Your task to perform on an android device: Open my contact list Image 0: 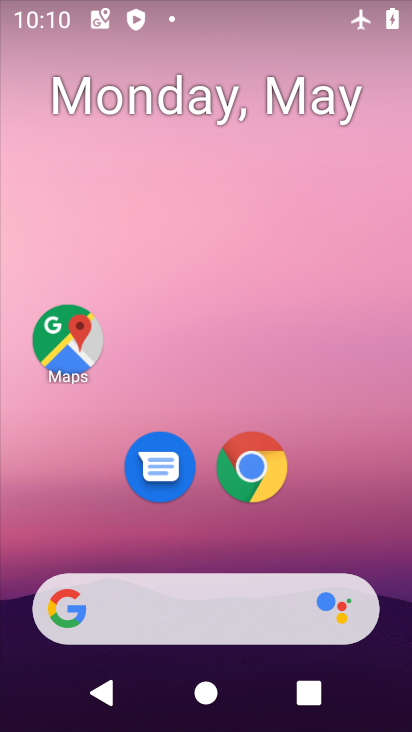
Step 0: drag from (395, 625) to (275, 113)
Your task to perform on an android device: Open my contact list Image 1: 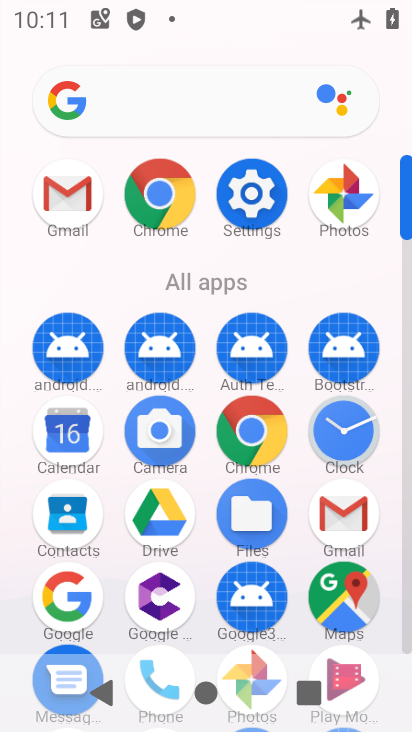
Step 1: click (403, 615)
Your task to perform on an android device: Open my contact list Image 2: 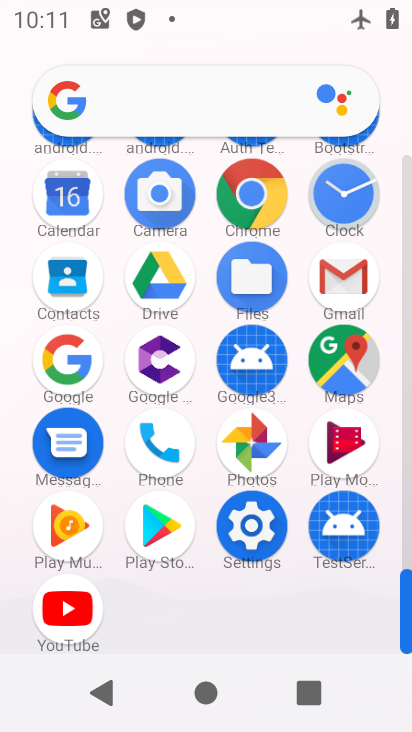
Step 2: click (68, 280)
Your task to perform on an android device: Open my contact list Image 3: 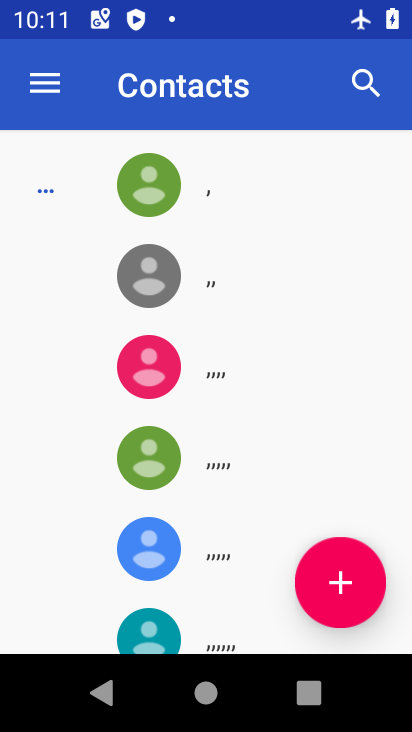
Step 3: task complete